Your task to perform on an android device: Do I have any events this weekend? Image 0: 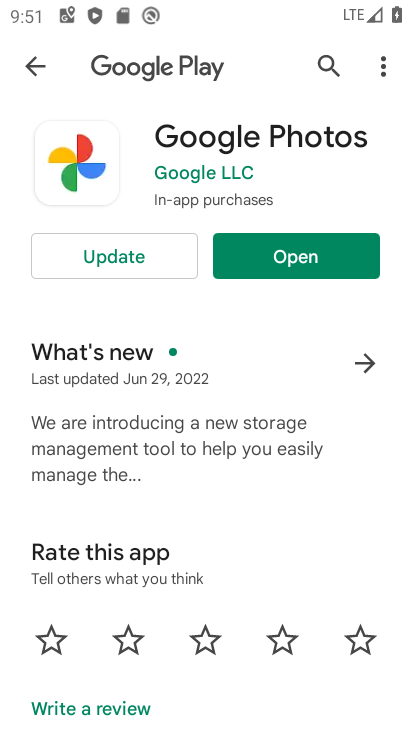
Step 0: press home button
Your task to perform on an android device: Do I have any events this weekend? Image 1: 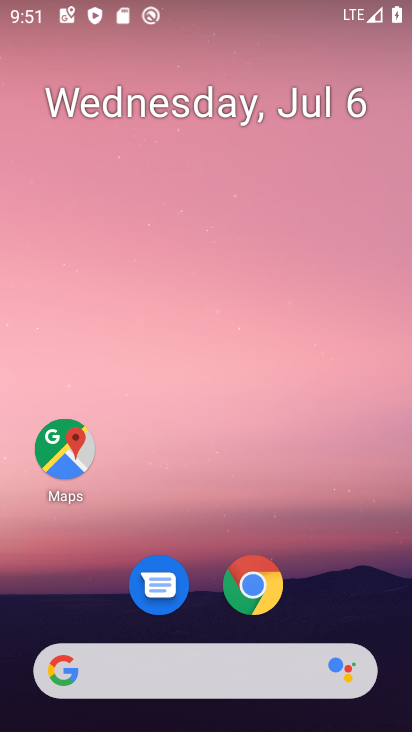
Step 1: drag from (203, 537) to (247, 1)
Your task to perform on an android device: Do I have any events this weekend? Image 2: 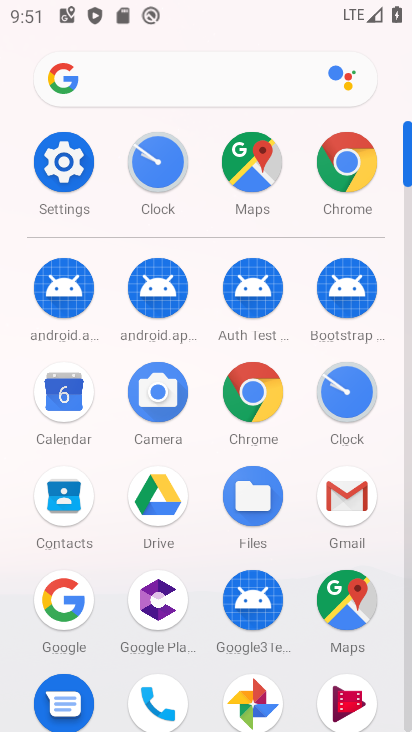
Step 2: click (71, 403)
Your task to perform on an android device: Do I have any events this weekend? Image 3: 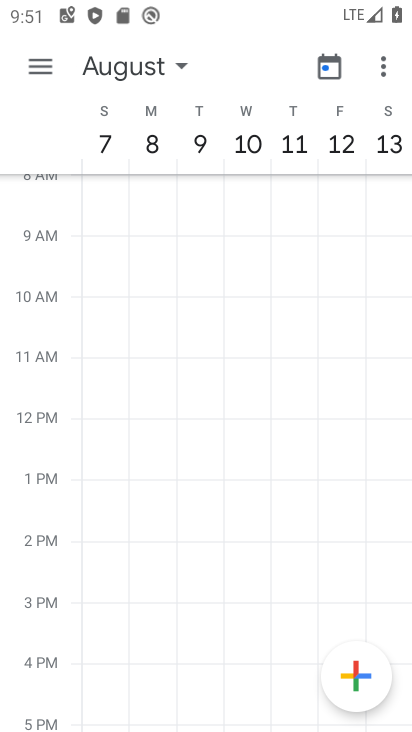
Step 3: drag from (125, 348) to (393, 338)
Your task to perform on an android device: Do I have any events this weekend? Image 4: 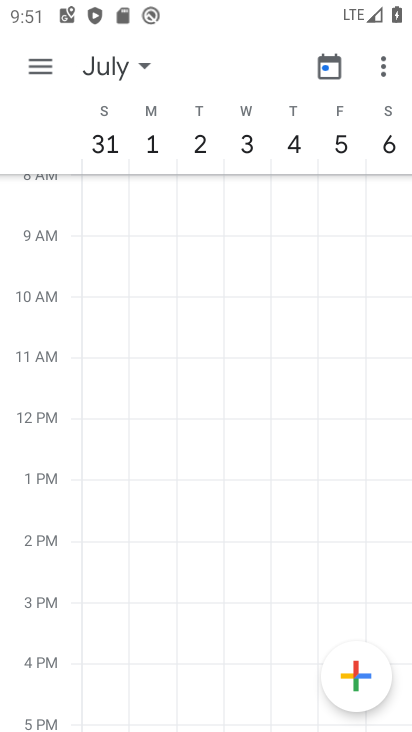
Step 4: drag from (117, 421) to (393, 429)
Your task to perform on an android device: Do I have any events this weekend? Image 5: 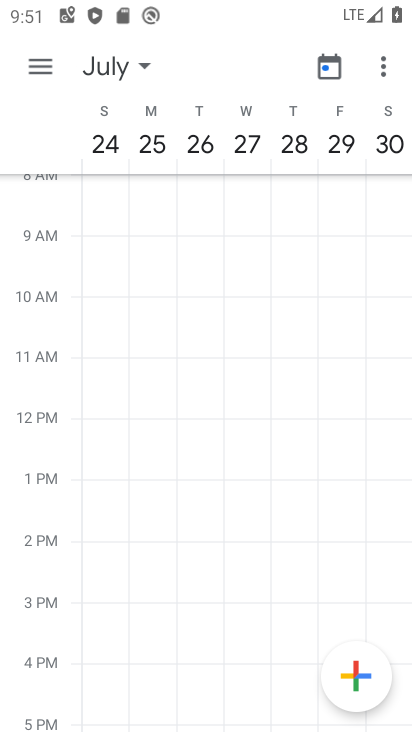
Step 5: drag from (112, 386) to (399, 369)
Your task to perform on an android device: Do I have any events this weekend? Image 6: 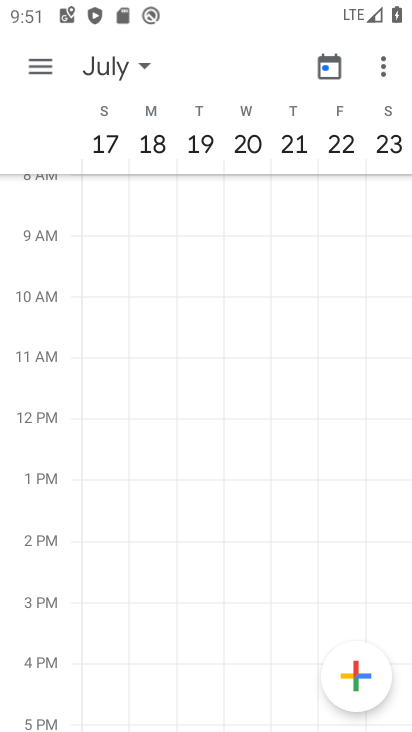
Step 6: drag from (105, 368) to (404, 362)
Your task to perform on an android device: Do I have any events this weekend? Image 7: 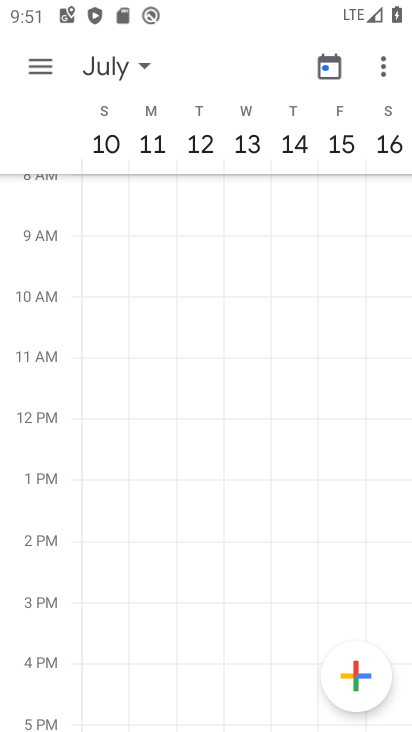
Step 7: drag from (93, 385) to (408, 387)
Your task to perform on an android device: Do I have any events this weekend? Image 8: 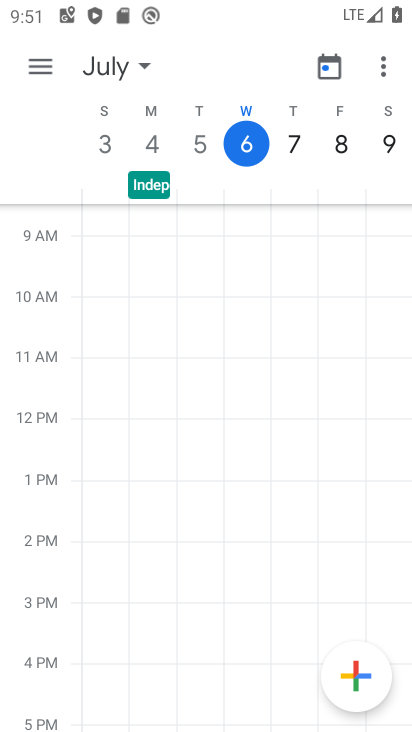
Step 8: click (386, 137)
Your task to perform on an android device: Do I have any events this weekend? Image 9: 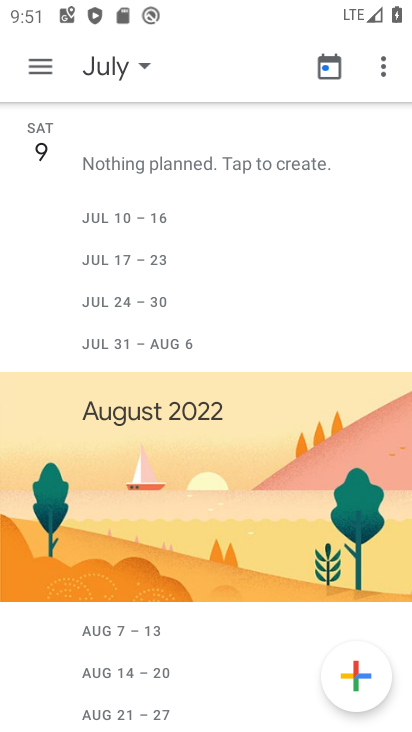
Step 9: task complete